Your task to perform on an android device: open sync settings in chrome Image 0: 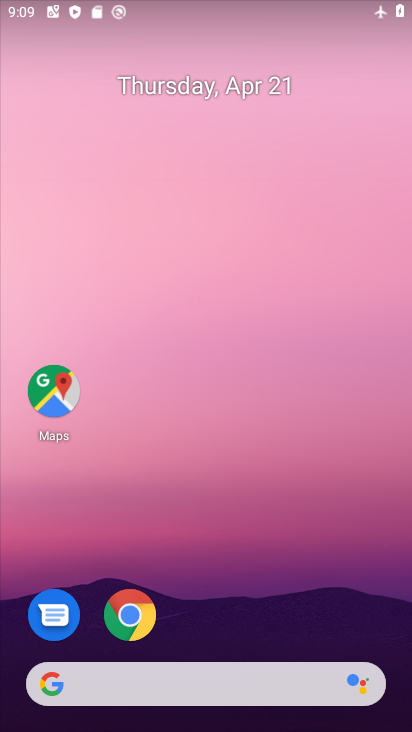
Step 0: click (129, 613)
Your task to perform on an android device: open sync settings in chrome Image 1: 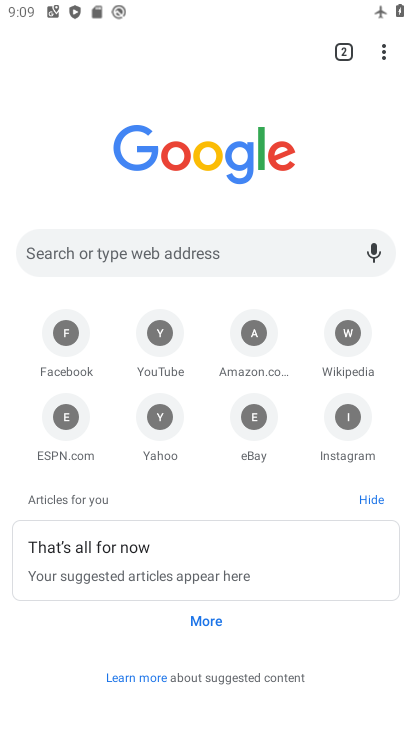
Step 1: drag from (384, 53) to (235, 433)
Your task to perform on an android device: open sync settings in chrome Image 2: 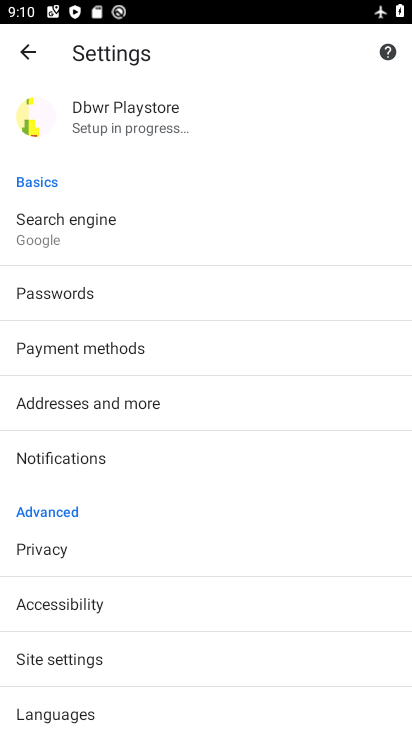
Step 2: drag from (148, 671) to (155, 394)
Your task to perform on an android device: open sync settings in chrome Image 3: 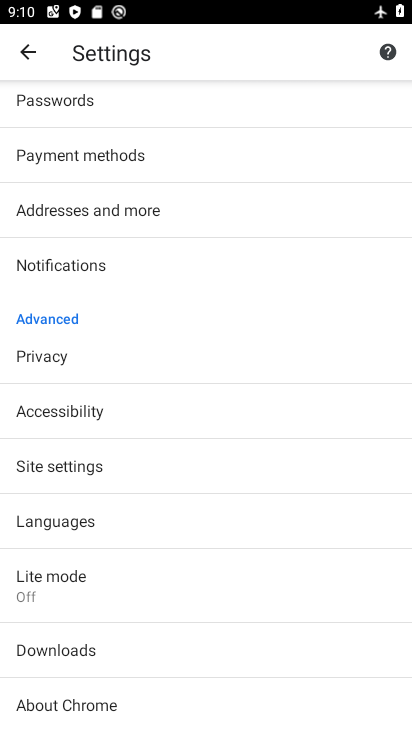
Step 3: click (89, 464)
Your task to perform on an android device: open sync settings in chrome Image 4: 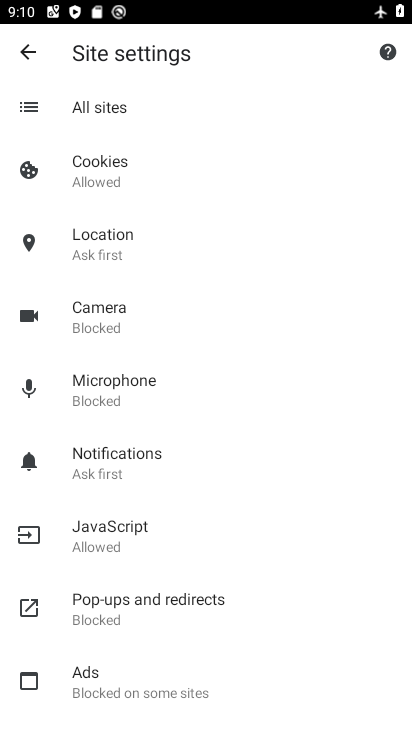
Step 4: drag from (170, 659) to (169, 388)
Your task to perform on an android device: open sync settings in chrome Image 5: 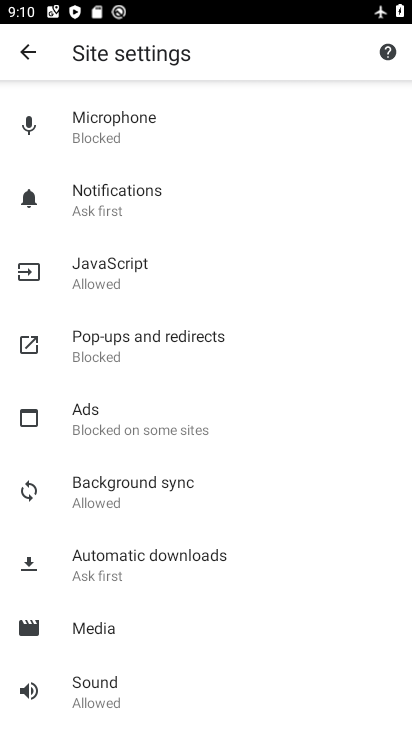
Step 5: click (105, 486)
Your task to perform on an android device: open sync settings in chrome Image 6: 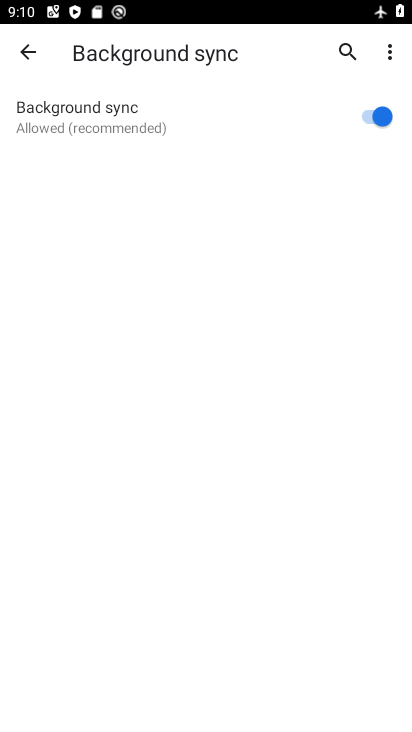
Step 6: task complete